Your task to perform on an android device: open sync settings in chrome Image 0: 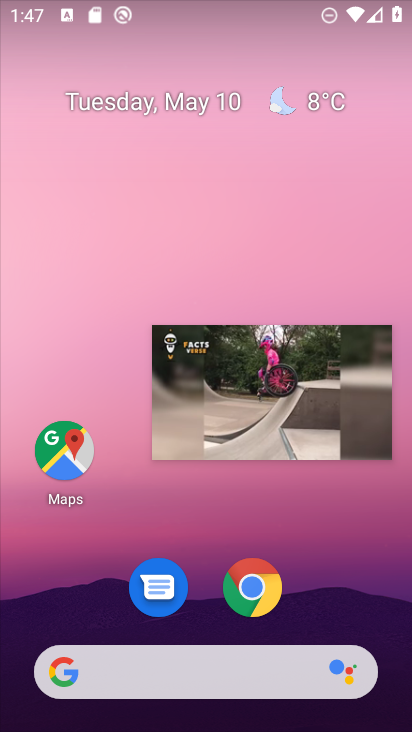
Step 0: click (249, 592)
Your task to perform on an android device: open sync settings in chrome Image 1: 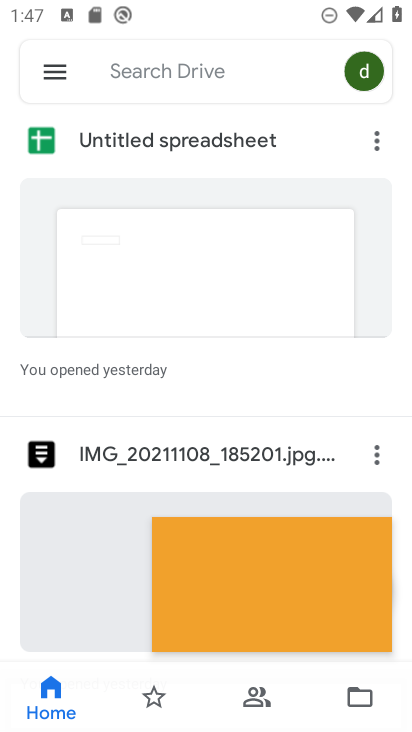
Step 1: press home button
Your task to perform on an android device: open sync settings in chrome Image 2: 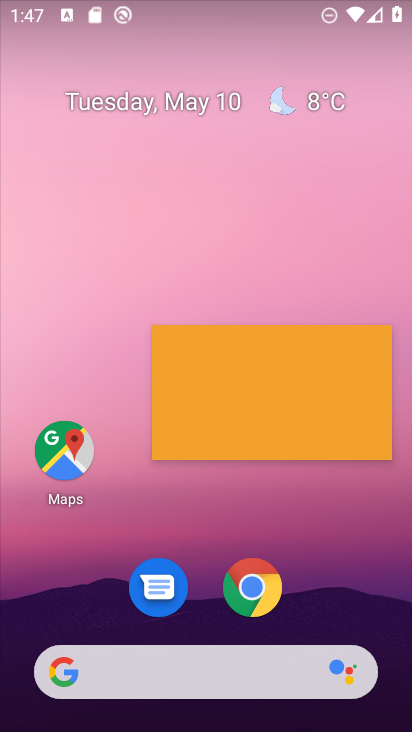
Step 2: click (255, 585)
Your task to perform on an android device: open sync settings in chrome Image 3: 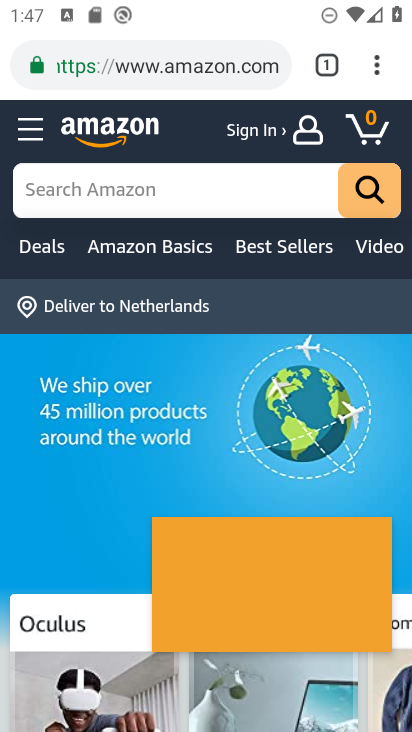
Step 3: click (375, 61)
Your task to perform on an android device: open sync settings in chrome Image 4: 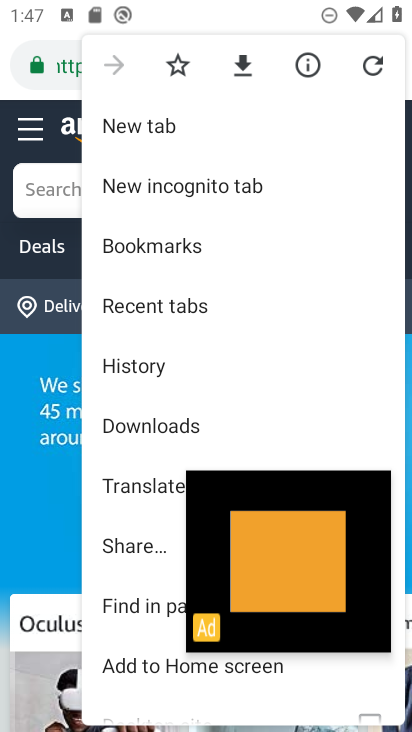
Step 4: drag from (127, 543) to (105, 317)
Your task to perform on an android device: open sync settings in chrome Image 5: 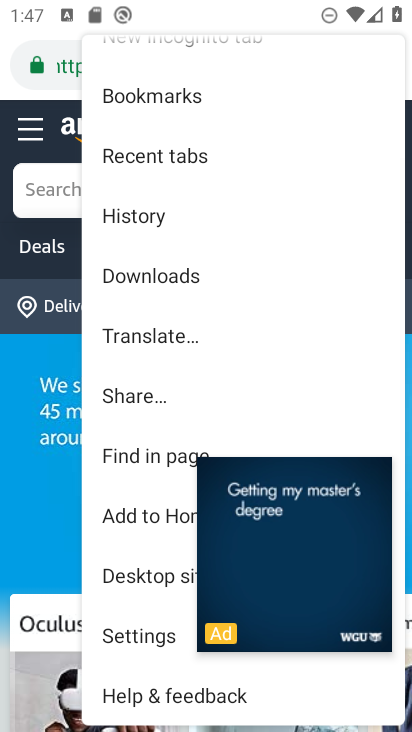
Step 5: click (122, 628)
Your task to perform on an android device: open sync settings in chrome Image 6: 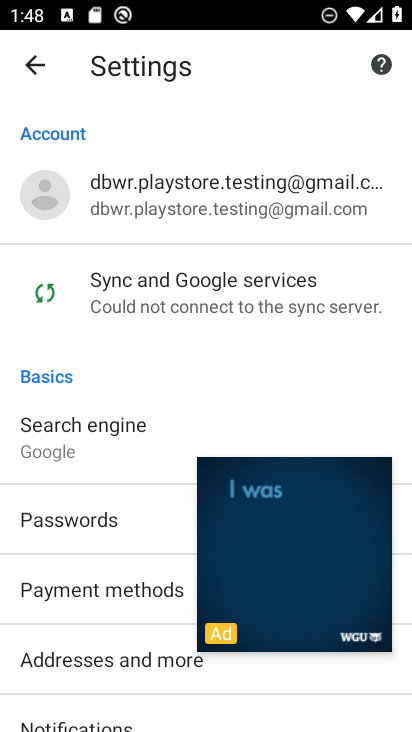
Step 6: drag from (97, 670) to (116, 410)
Your task to perform on an android device: open sync settings in chrome Image 7: 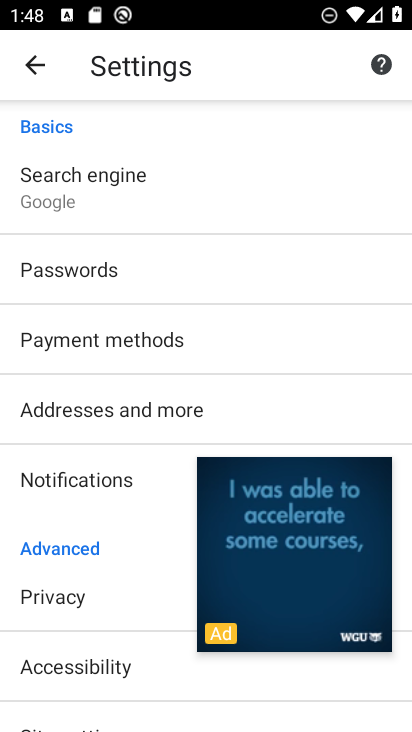
Step 7: drag from (130, 321) to (134, 661)
Your task to perform on an android device: open sync settings in chrome Image 8: 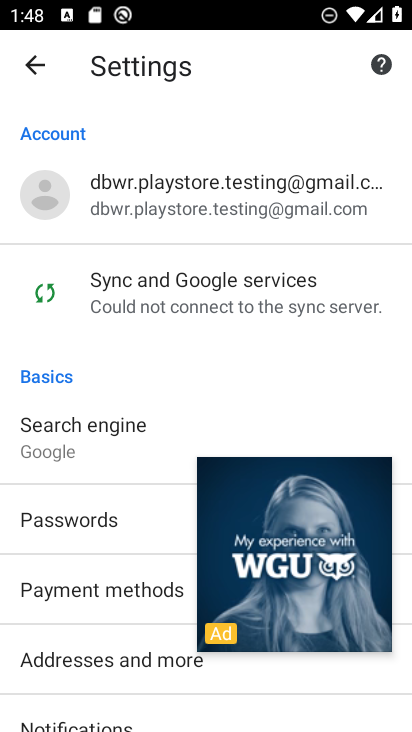
Step 8: drag from (73, 642) to (91, 319)
Your task to perform on an android device: open sync settings in chrome Image 9: 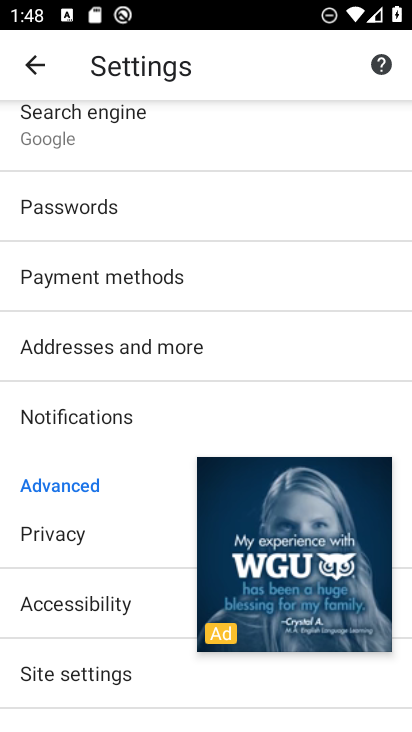
Step 9: click (71, 667)
Your task to perform on an android device: open sync settings in chrome Image 10: 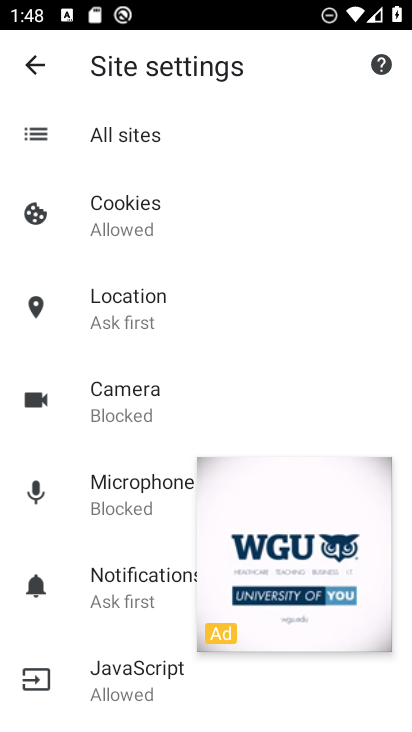
Step 10: drag from (110, 691) to (99, 407)
Your task to perform on an android device: open sync settings in chrome Image 11: 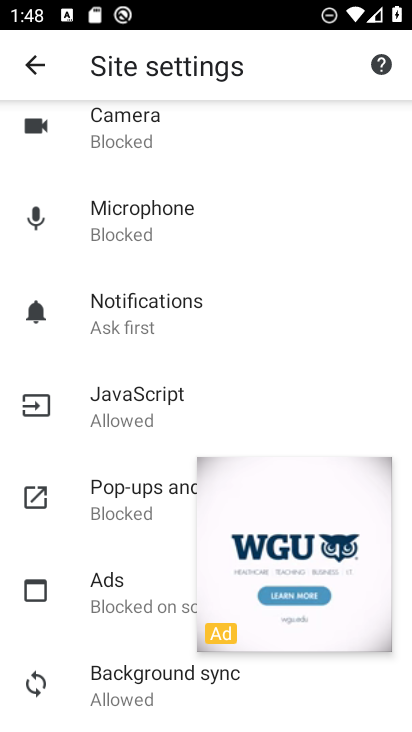
Step 11: click (107, 673)
Your task to perform on an android device: open sync settings in chrome Image 12: 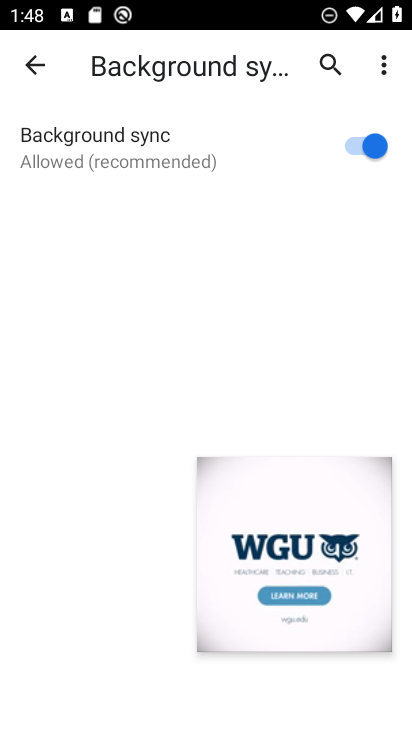
Step 12: task complete